Your task to perform on an android device: open a bookmark in the chrome app Image 0: 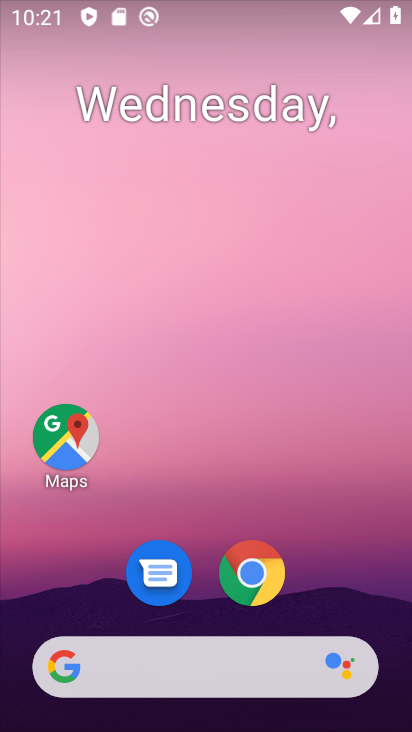
Step 0: click (264, 580)
Your task to perform on an android device: open a bookmark in the chrome app Image 1: 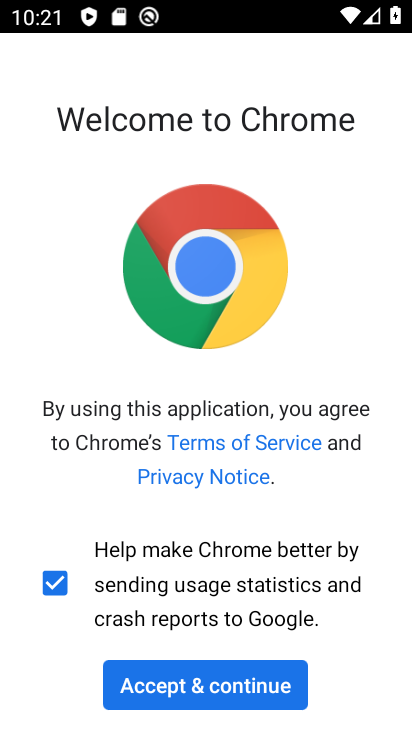
Step 1: click (202, 682)
Your task to perform on an android device: open a bookmark in the chrome app Image 2: 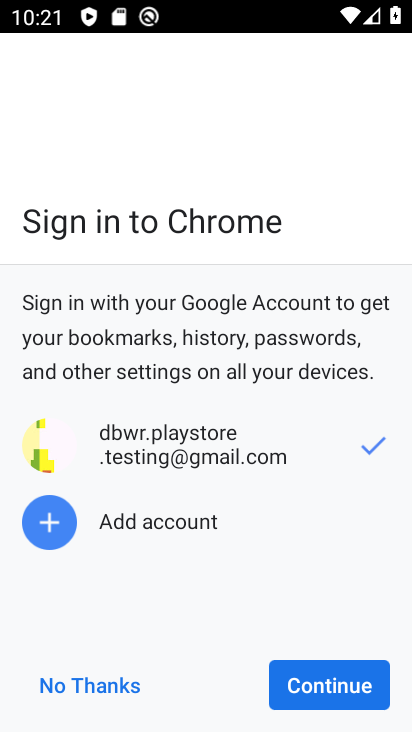
Step 2: click (294, 694)
Your task to perform on an android device: open a bookmark in the chrome app Image 3: 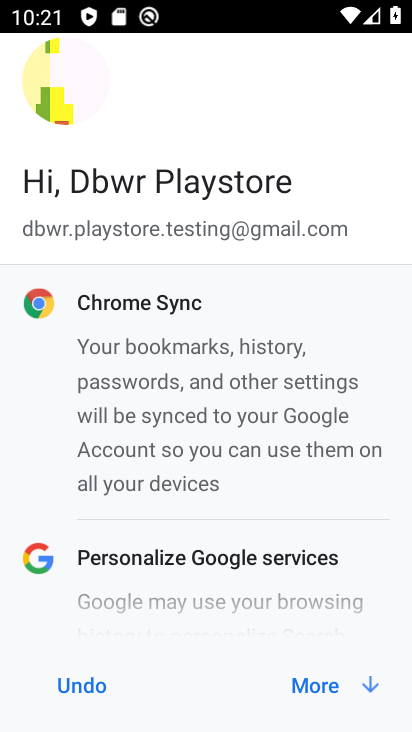
Step 3: click (303, 693)
Your task to perform on an android device: open a bookmark in the chrome app Image 4: 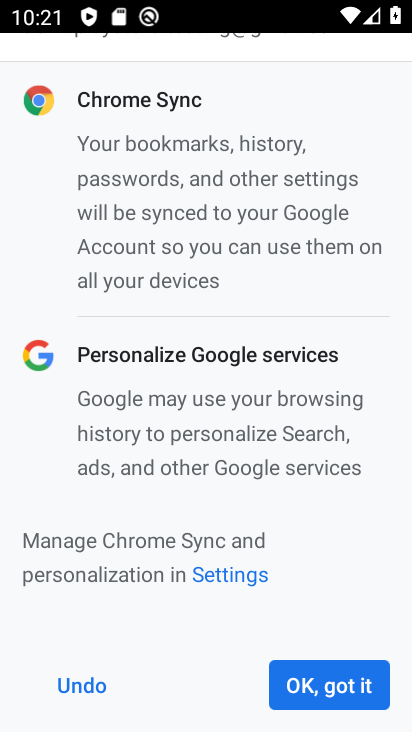
Step 4: click (304, 693)
Your task to perform on an android device: open a bookmark in the chrome app Image 5: 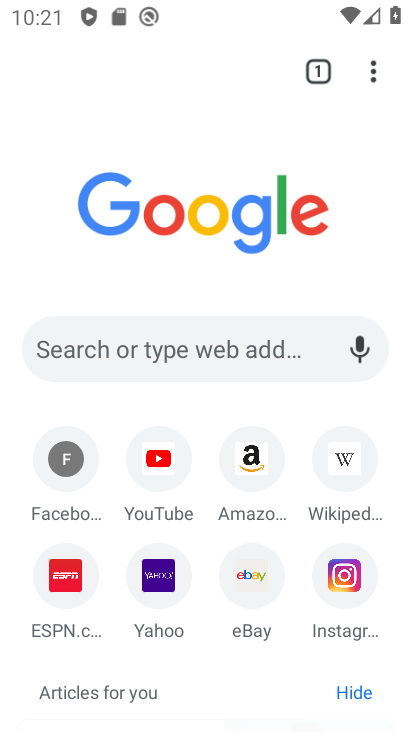
Step 5: task complete